Your task to perform on an android device: Open notification settings Image 0: 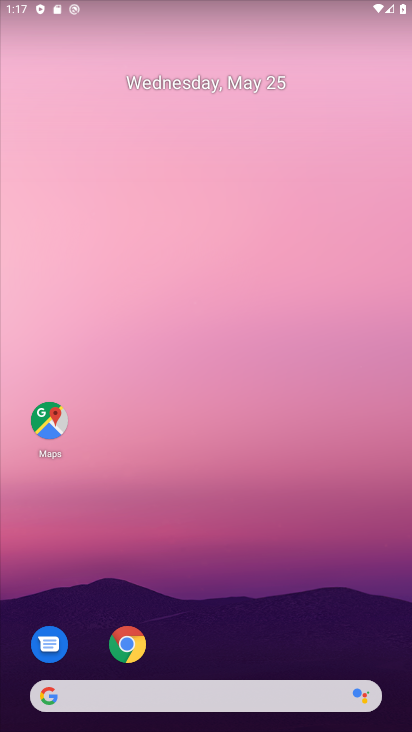
Step 0: drag from (206, 601) to (65, 40)
Your task to perform on an android device: Open notification settings Image 1: 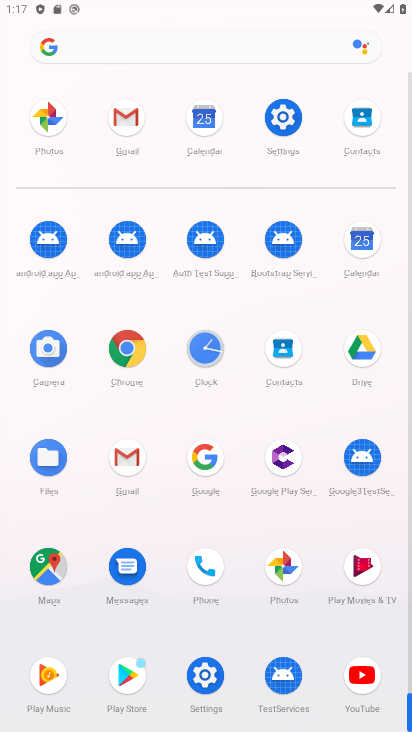
Step 1: click (204, 681)
Your task to perform on an android device: Open notification settings Image 2: 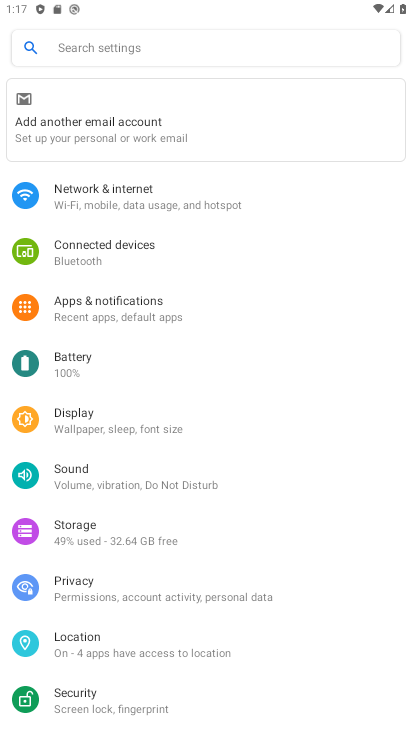
Step 2: click (98, 313)
Your task to perform on an android device: Open notification settings Image 3: 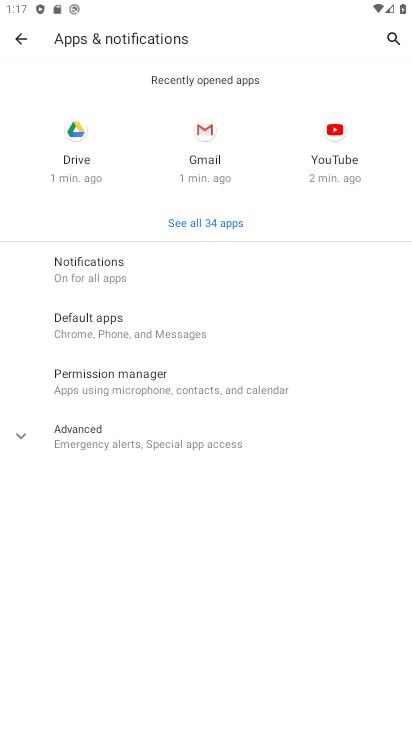
Step 3: click (103, 277)
Your task to perform on an android device: Open notification settings Image 4: 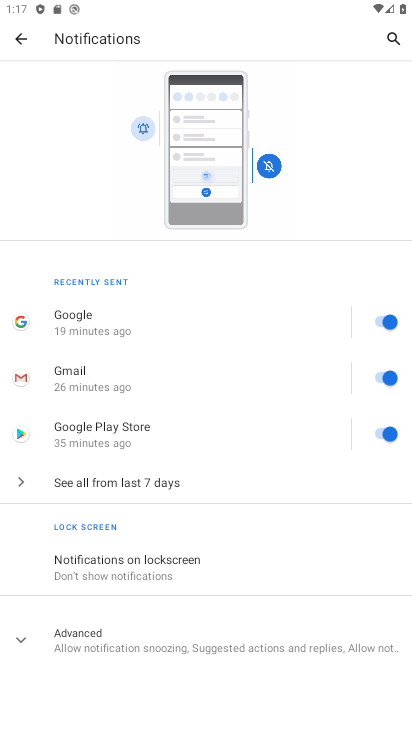
Step 4: task complete